Your task to perform on an android device: toggle data saver in the chrome app Image 0: 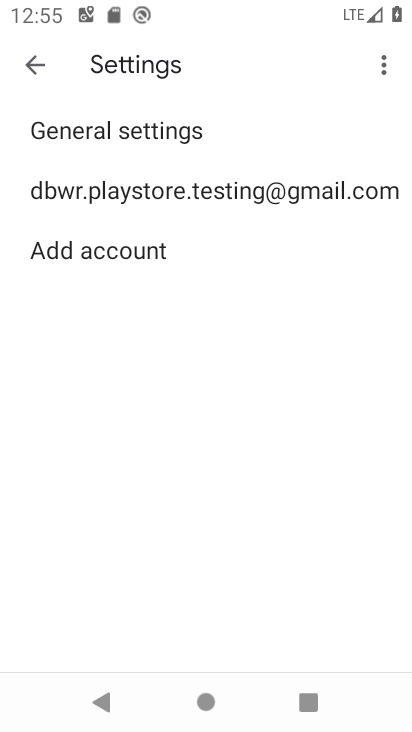
Step 0: press home button
Your task to perform on an android device: toggle data saver in the chrome app Image 1: 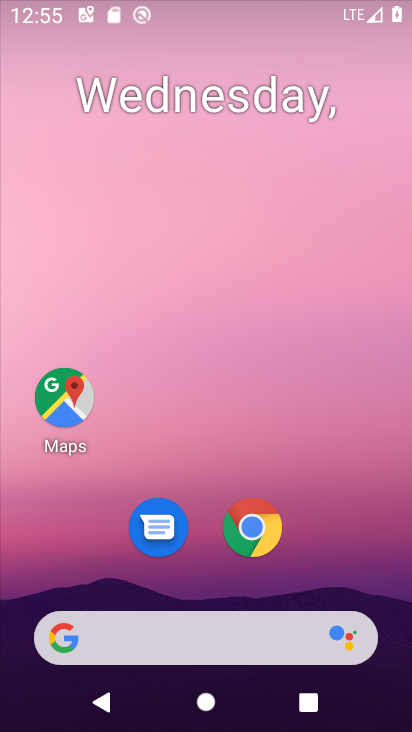
Step 1: drag from (264, 650) to (369, 6)
Your task to perform on an android device: toggle data saver in the chrome app Image 2: 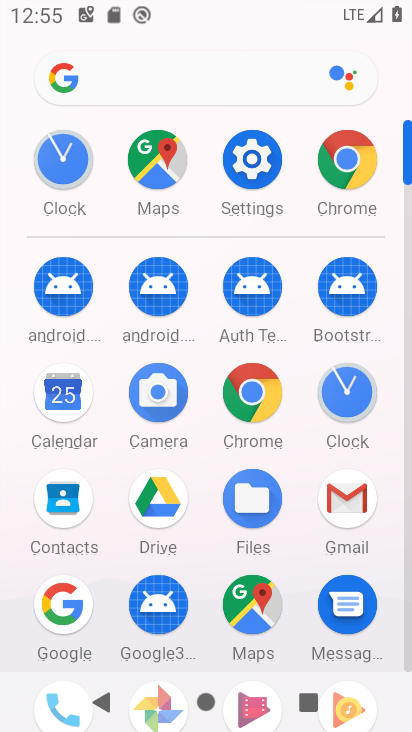
Step 2: click (265, 381)
Your task to perform on an android device: toggle data saver in the chrome app Image 3: 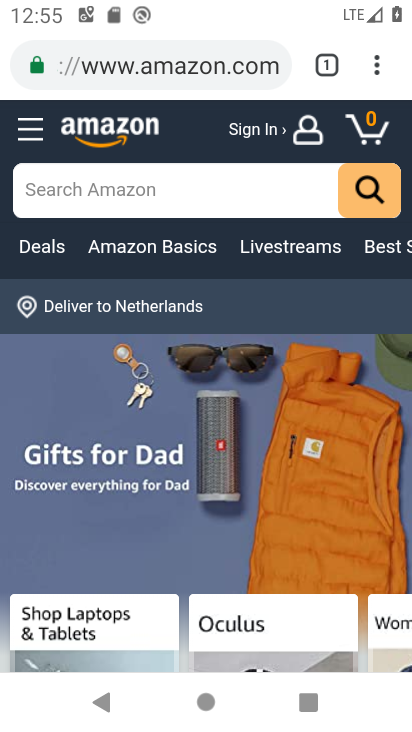
Step 3: drag from (376, 55) to (172, 584)
Your task to perform on an android device: toggle data saver in the chrome app Image 4: 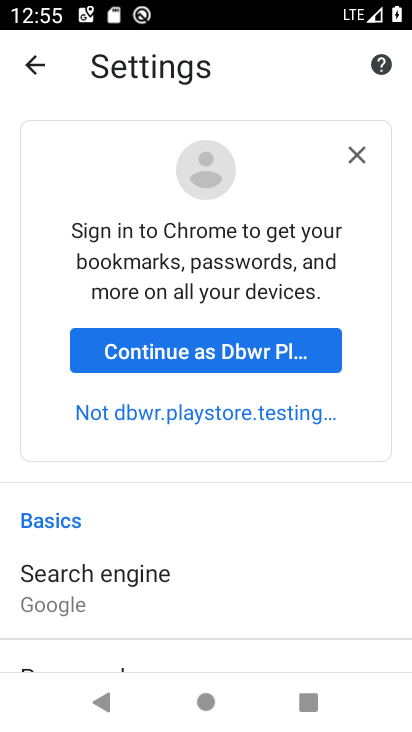
Step 4: drag from (188, 647) to (218, 95)
Your task to perform on an android device: toggle data saver in the chrome app Image 5: 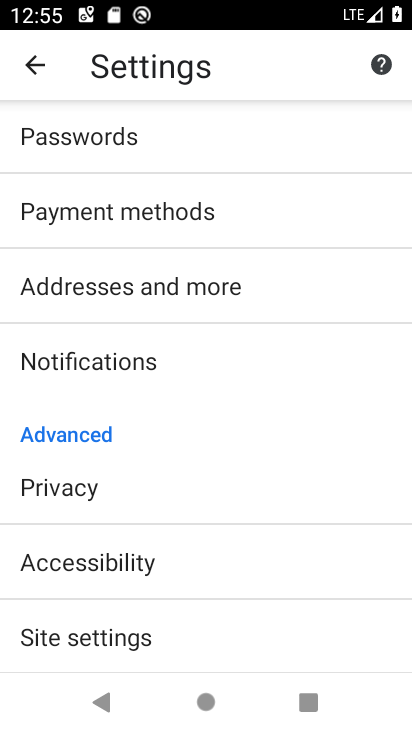
Step 5: drag from (227, 639) to (219, 261)
Your task to perform on an android device: toggle data saver in the chrome app Image 6: 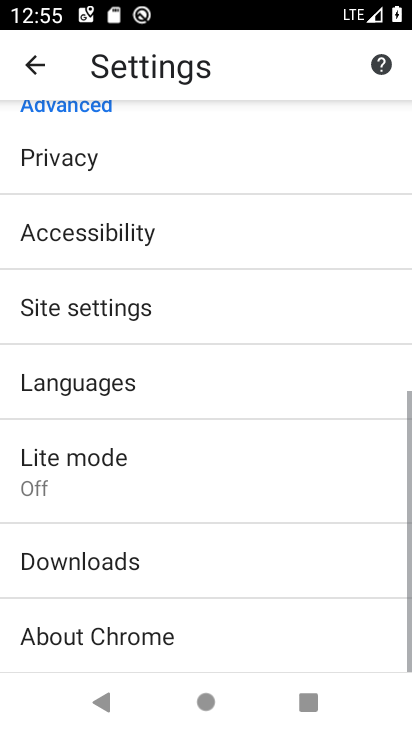
Step 6: click (129, 445)
Your task to perform on an android device: toggle data saver in the chrome app Image 7: 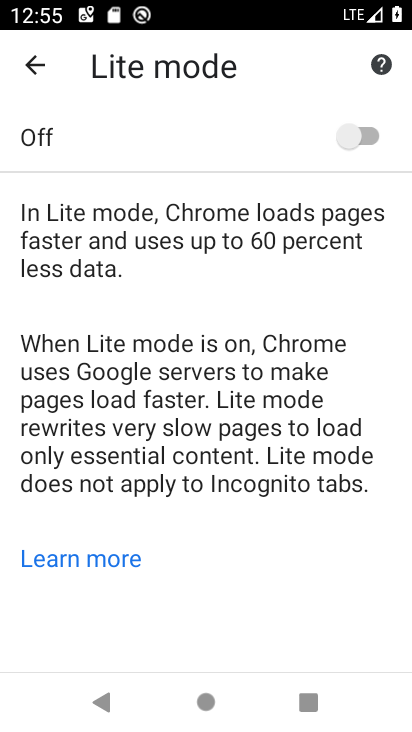
Step 7: click (374, 135)
Your task to perform on an android device: toggle data saver in the chrome app Image 8: 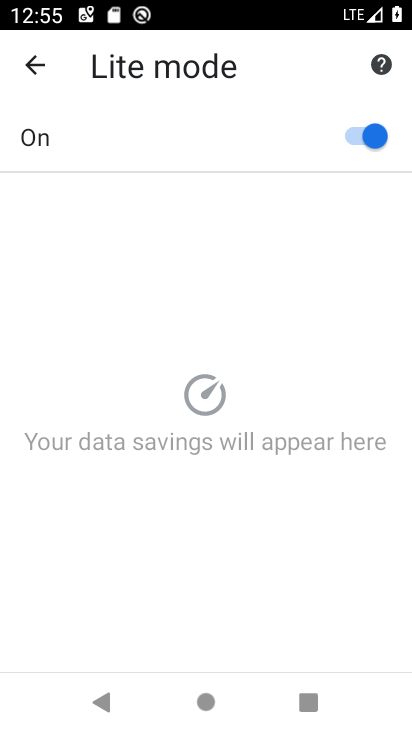
Step 8: task complete